Your task to perform on an android device: find photos in the google photos app Image 0: 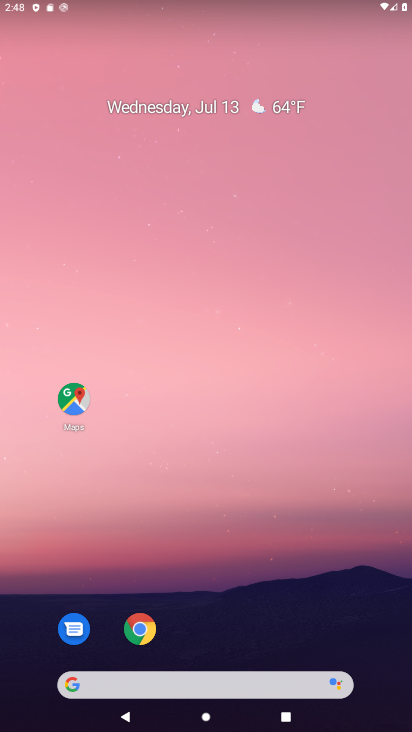
Step 0: drag from (266, 634) to (197, 22)
Your task to perform on an android device: find photos in the google photos app Image 1: 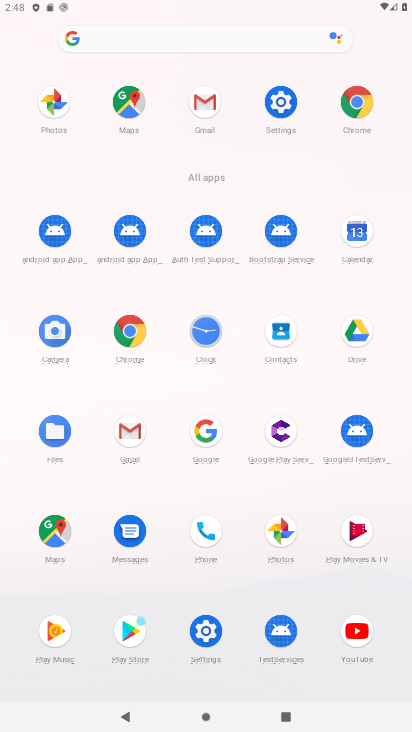
Step 1: click (285, 535)
Your task to perform on an android device: find photos in the google photos app Image 2: 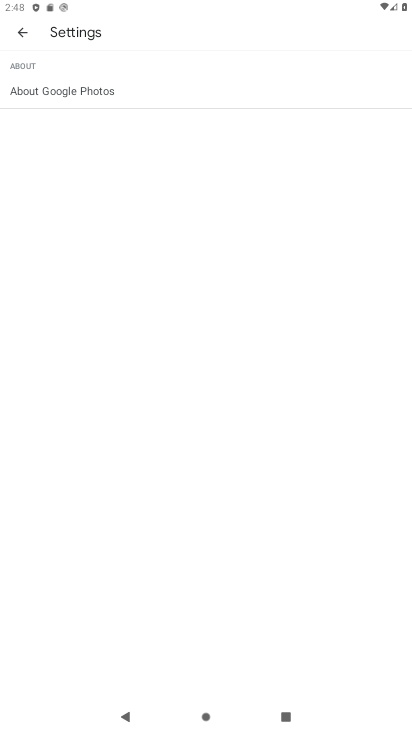
Step 2: click (14, 31)
Your task to perform on an android device: find photos in the google photos app Image 3: 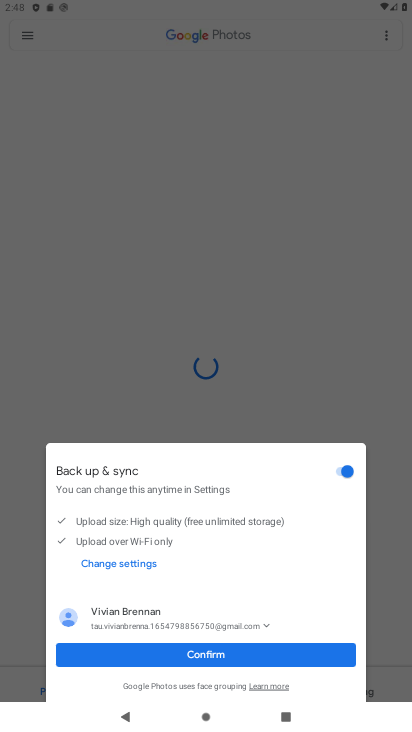
Step 3: click (208, 653)
Your task to perform on an android device: find photos in the google photos app Image 4: 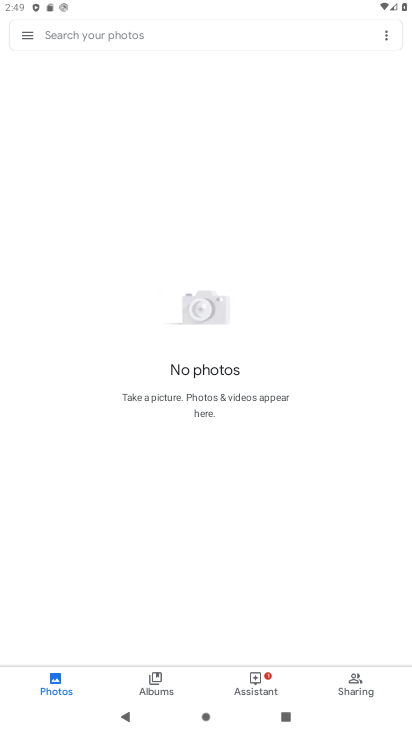
Step 4: task complete